Your task to perform on an android device: Go to Wikipedia Image 0: 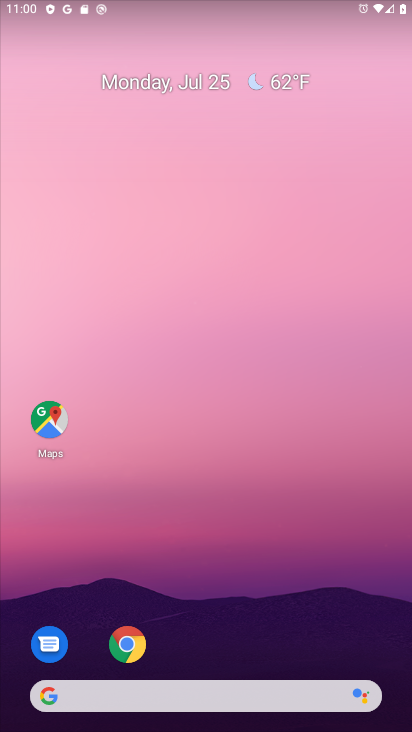
Step 0: click (123, 648)
Your task to perform on an android device: Go to Wikipedia Image 1: 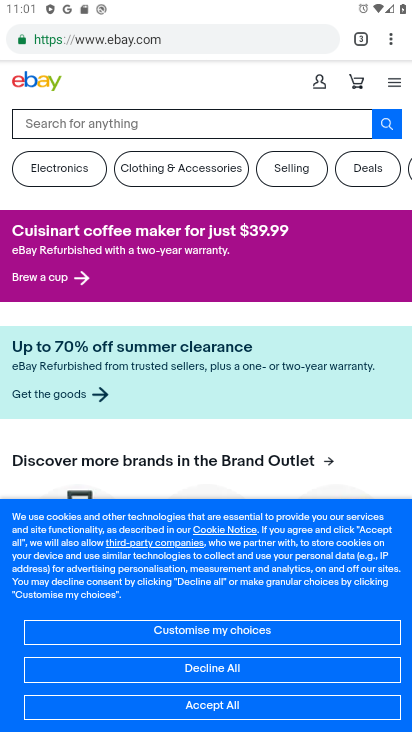
Step 1: click (364, 46)
Your task to perform on an android device: Go to Wikipedia Image 2: 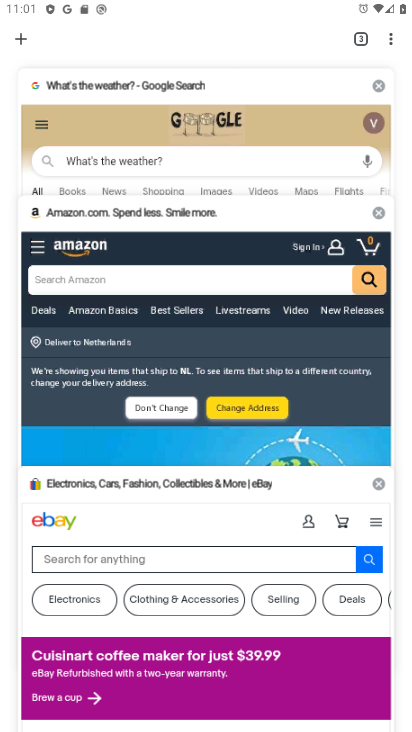
Step 2: click (21, 38)
Your task to perform on an android device: Go to Wikipedia Image 3: 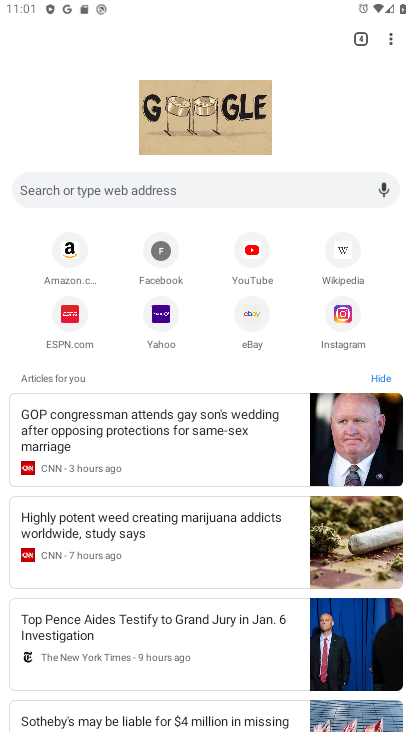
Step 3: click (343, 268)
Your task to perform on an android device: Go to Wikipedia Image 4: 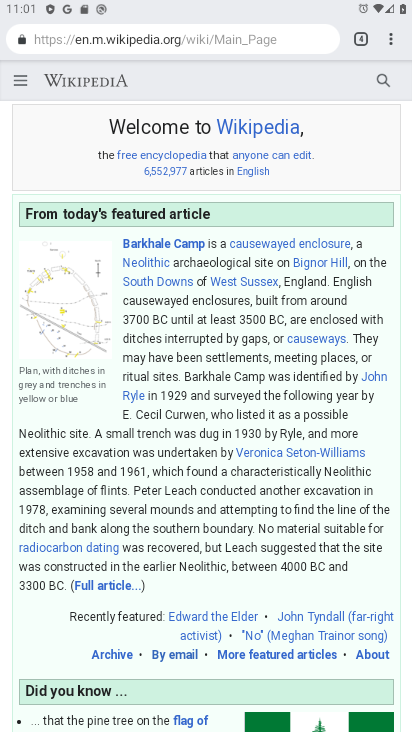
Step 4: task complete